Your task to perform on an android device: Is it going to rain today? Image 0: 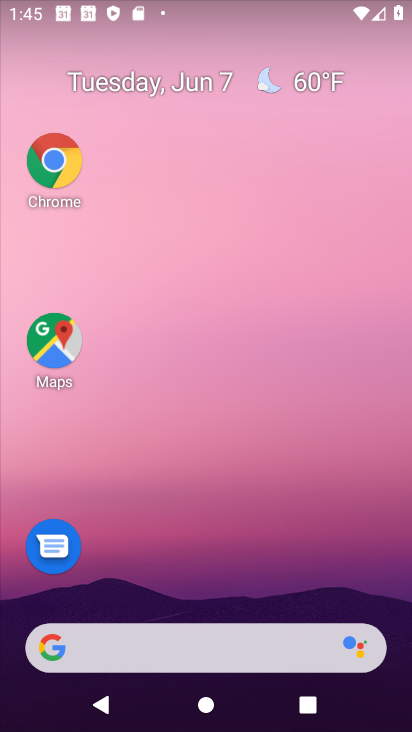
Step 0: drag from (198, 599) to (188, 64)
Your task to perform on an android device: Is it going to rain today? Image 1: 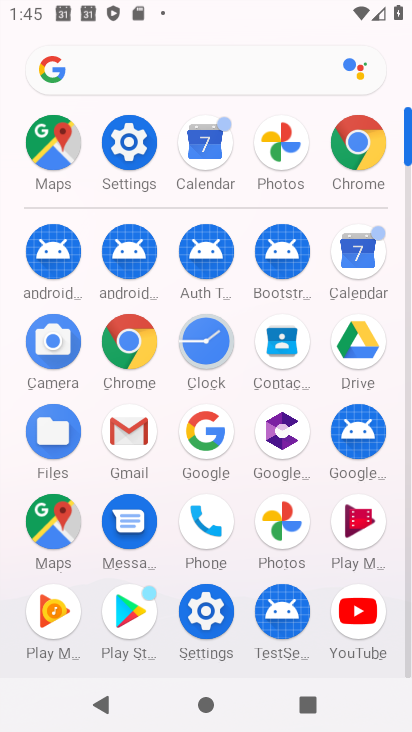
Step 1: click (143, 68)
Your task to perform on an android device: Is it going to rain today? Image 2: 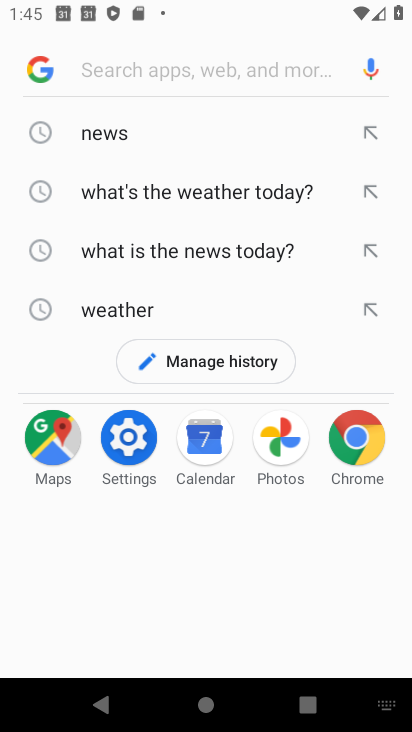
Step 2: drag from (382, 730) to (322, 515)
Your task to perform on an android device: Is it going to rain today? Image 3: 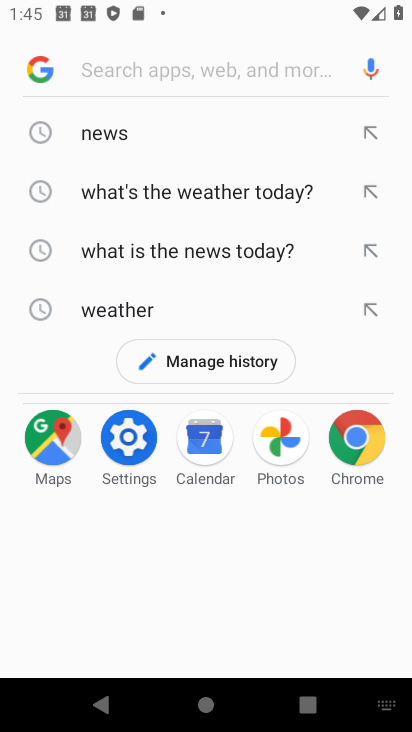
Step 3: click (133, 65)
Your task to perform on an android device: Is it going to rain today? Image 4: 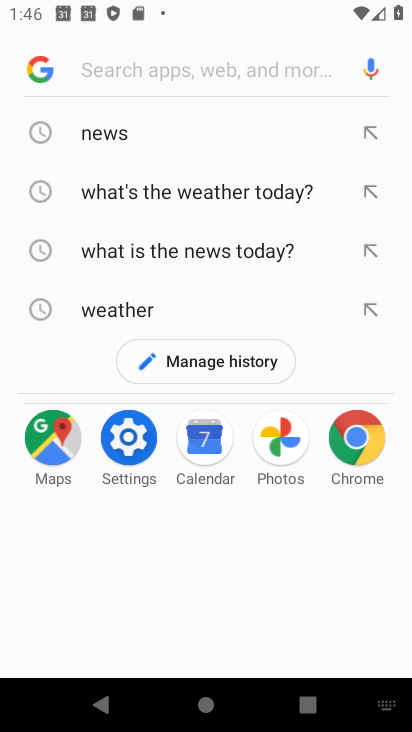
Step 4: type " rain today?"
Your task to perform on an android device: Is it going to rain today? Image 5: 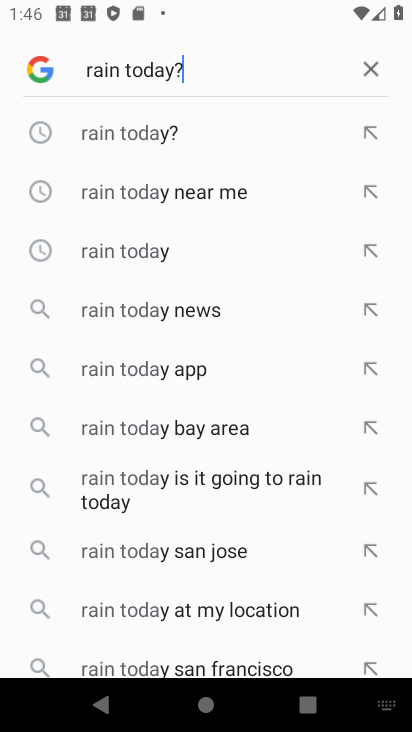
Step 5: type ""
Your task to perform on an android device: Is it going to rain today? Image 6: 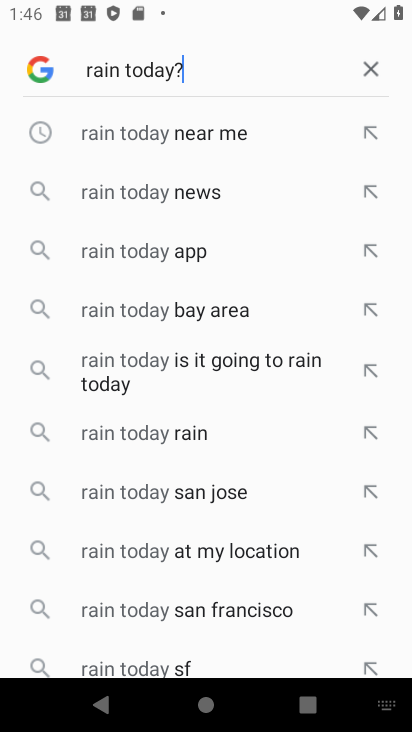
Step 6: click (83, 134)
Your task to perform on an android device: Is it going to rain today? Image 7: 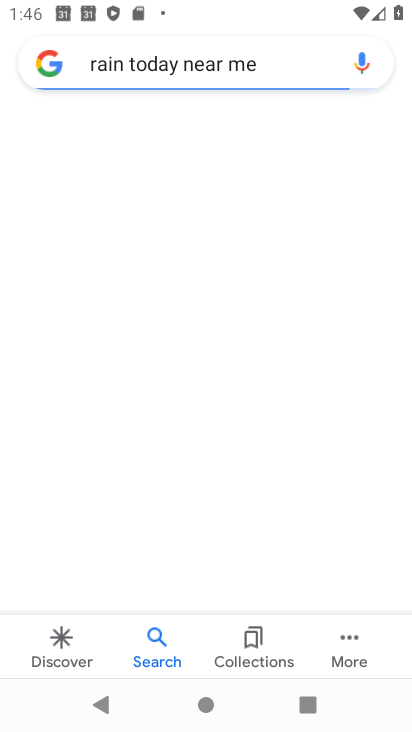
Step 7: task complete